Your task to perform on an android device: Is it going to rain tomorrow? Image 0: 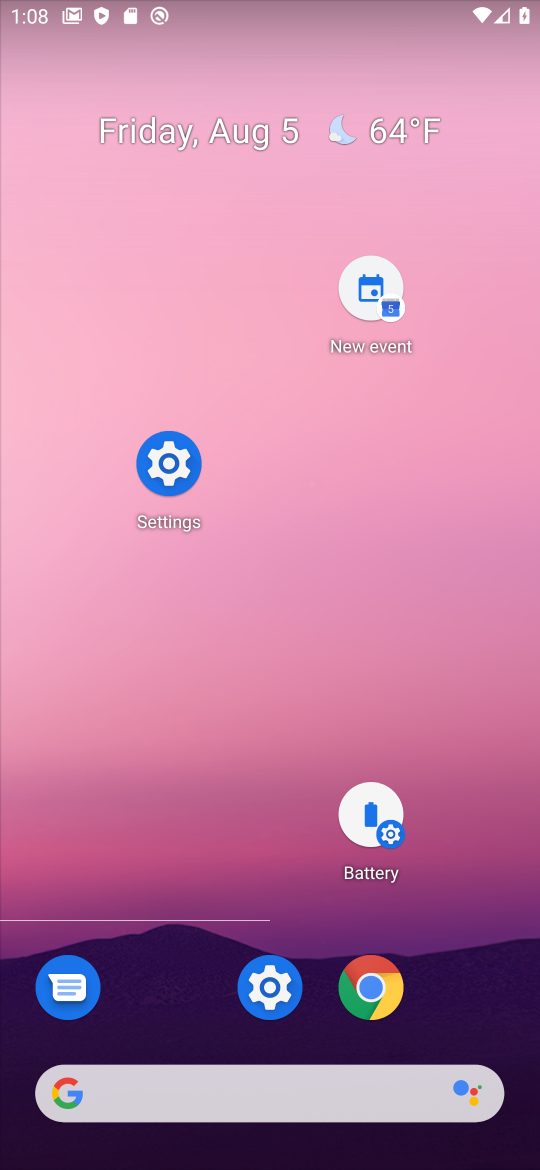
Step 0: drag from (360, 911) to (299, 399)
Your task to perform on an android device: Is it going to rain tomorrow? Image 1: 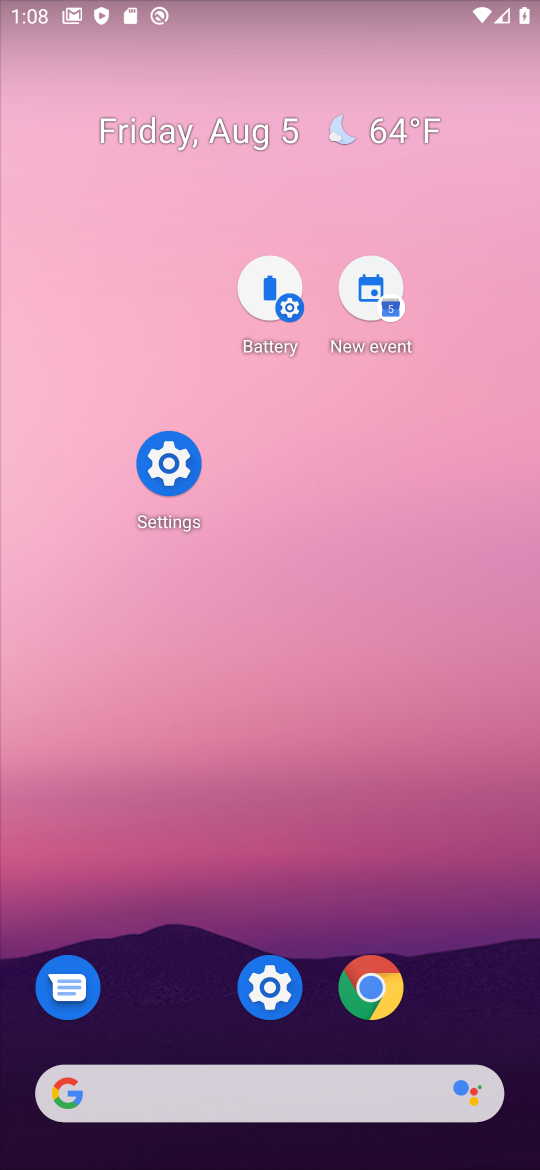
Step 1: drag from (308, 925) to (376, 592)
Your task to perform on an android device: Is it going to rain tomorrow? Image 2: 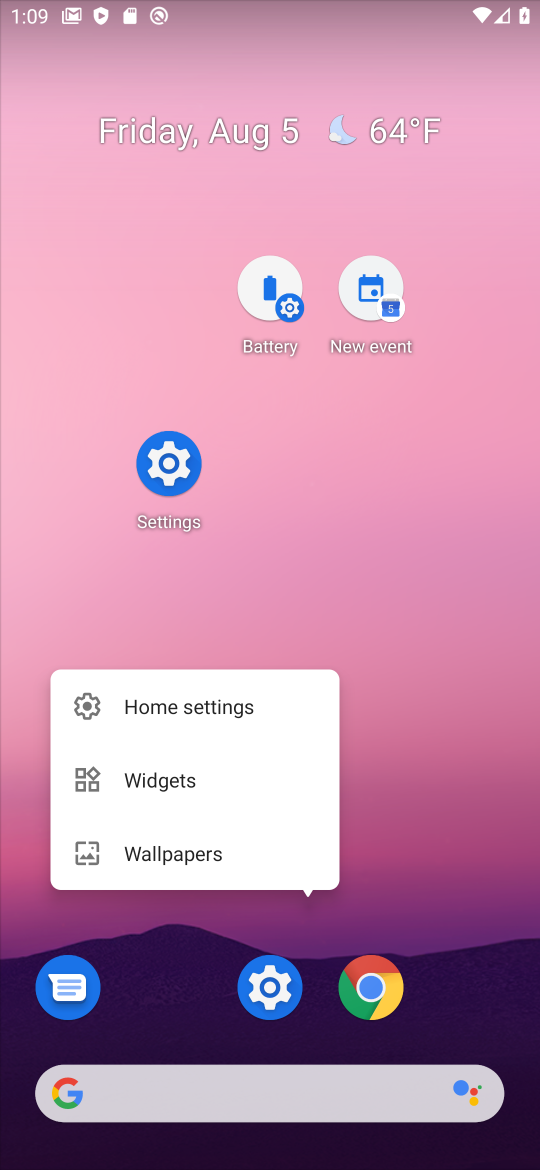
Step 2: press back button
Your task to perform on an android device: Is it going to rain tomorrow? Image 3: 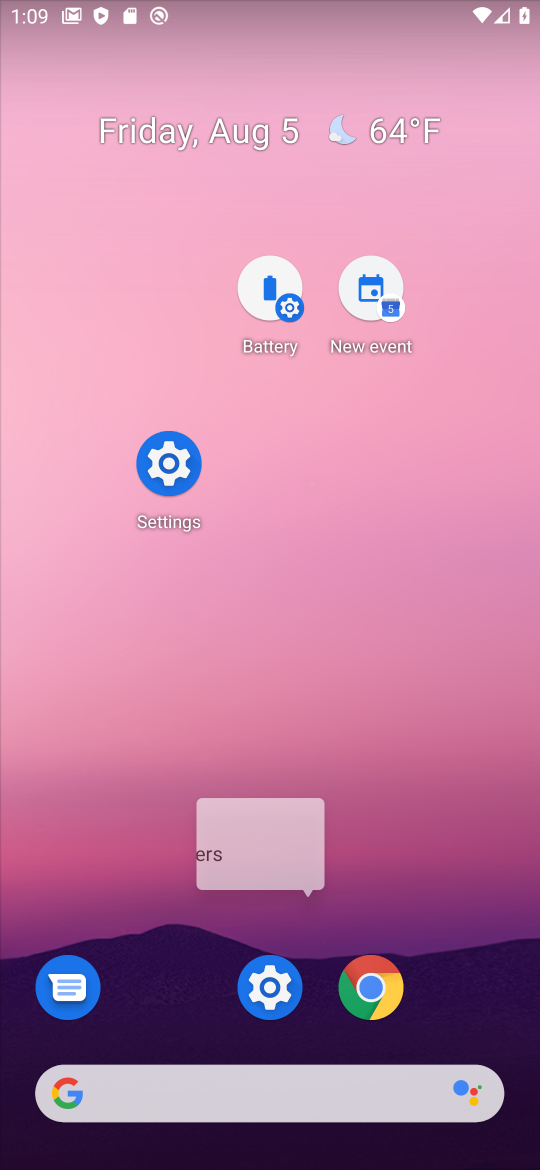
Step 3: press back button
Your task to perform on an android device: Is it going to rain tomorrow? Image 4: 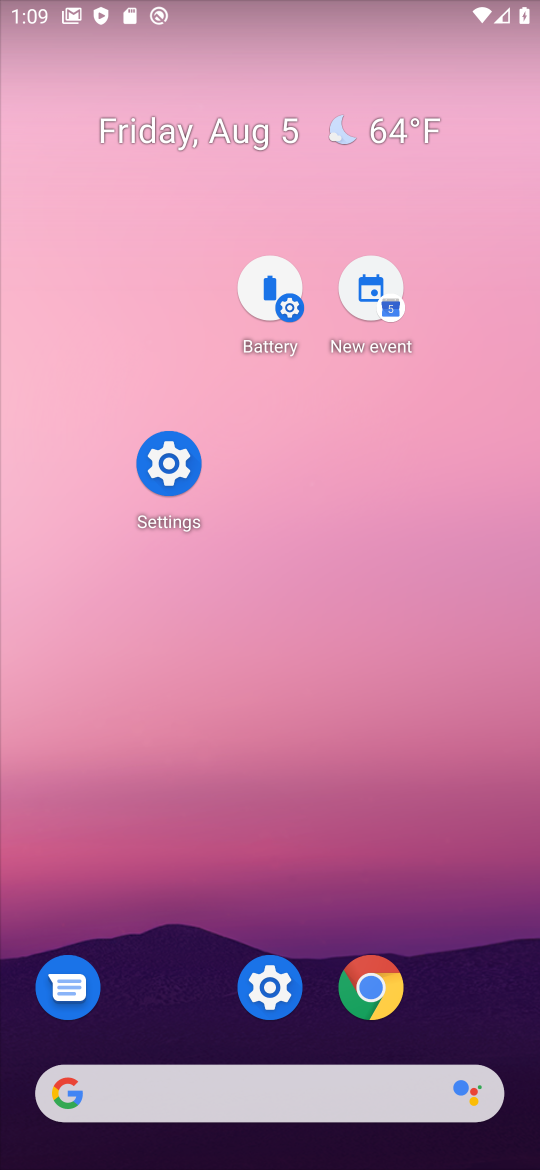
Step 4: drag from (351, 601) to (48, 284)
Your task to perform on an android device: Is it going to rain tomorrow? Image 5: 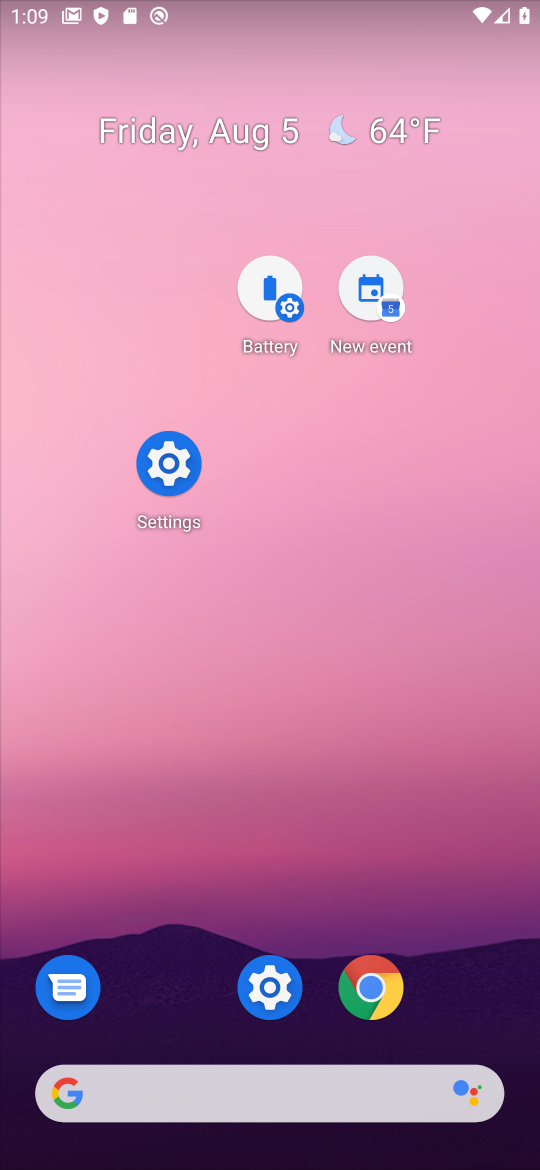
Step 5: drag from (343, 467) to (374, 359)
Your task to perform on an android device: Is it going to rain tomorrow? Image 6: 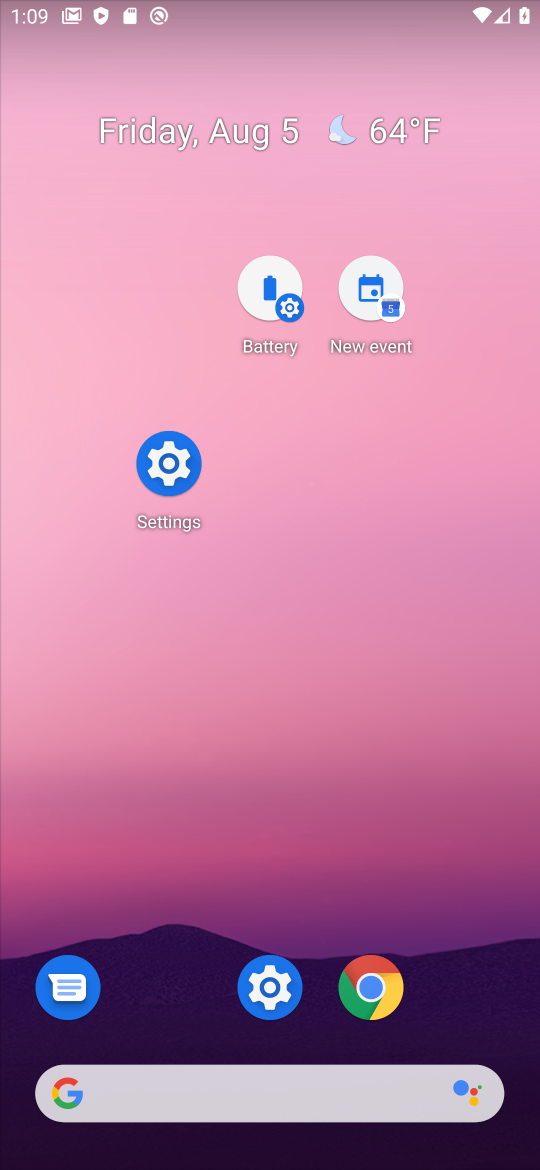
Step 6: drag from (294, 796) to (141, 446)
Your task to perform on an android device: Is it going to rain tomorrow? Image 7: 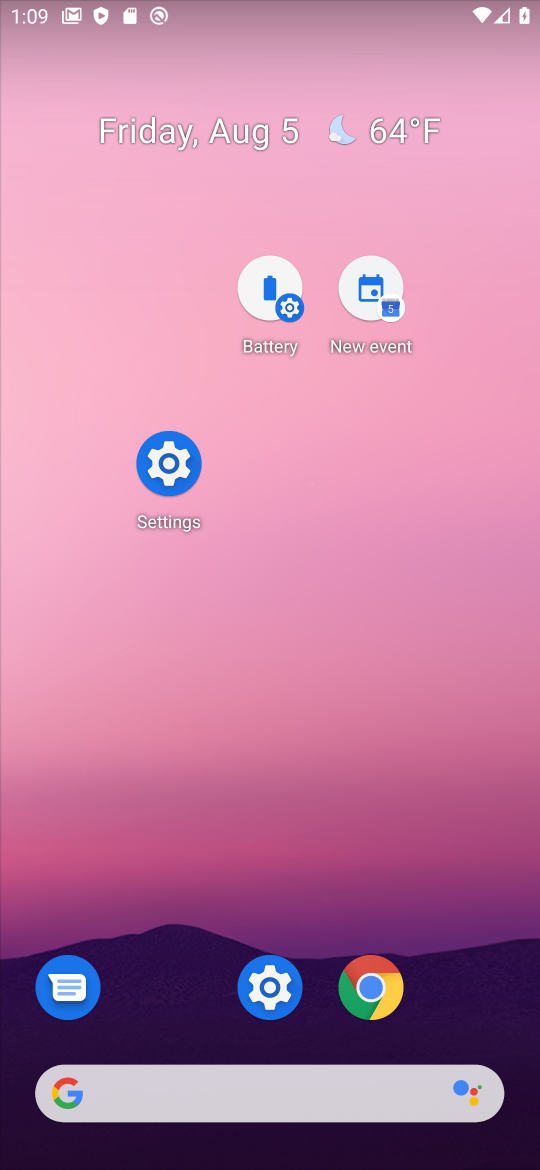
Step 7: click (282, 551)
Your task to perform on an android device: Is it going to rain tomorrow? Image 8: 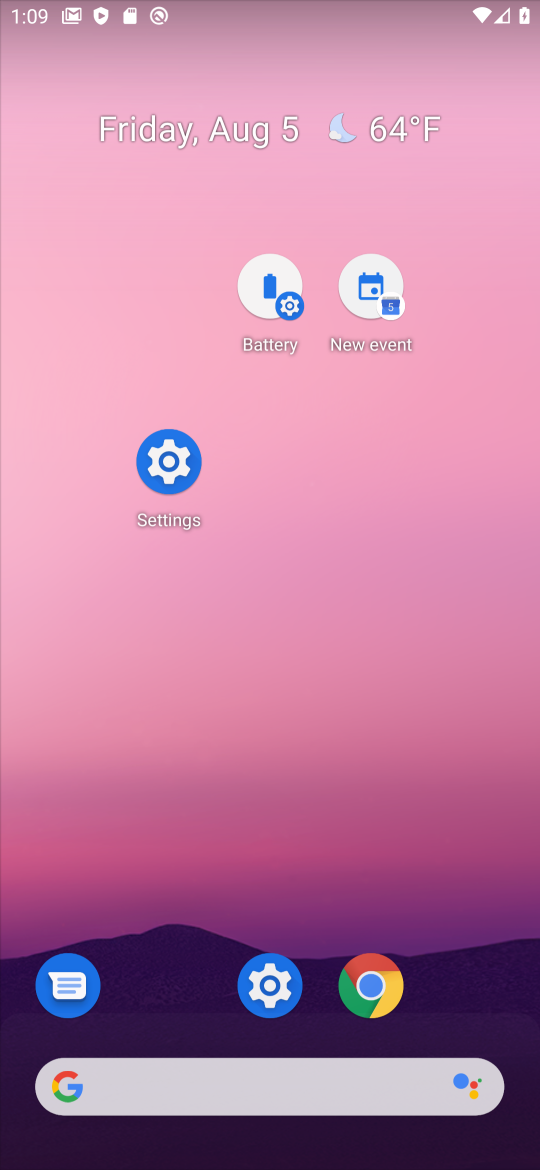
Step 8: drag from (362, 872) to (322, 595)
Your task to perform on an android device: Is it going to rain tomorrow? Image 9: 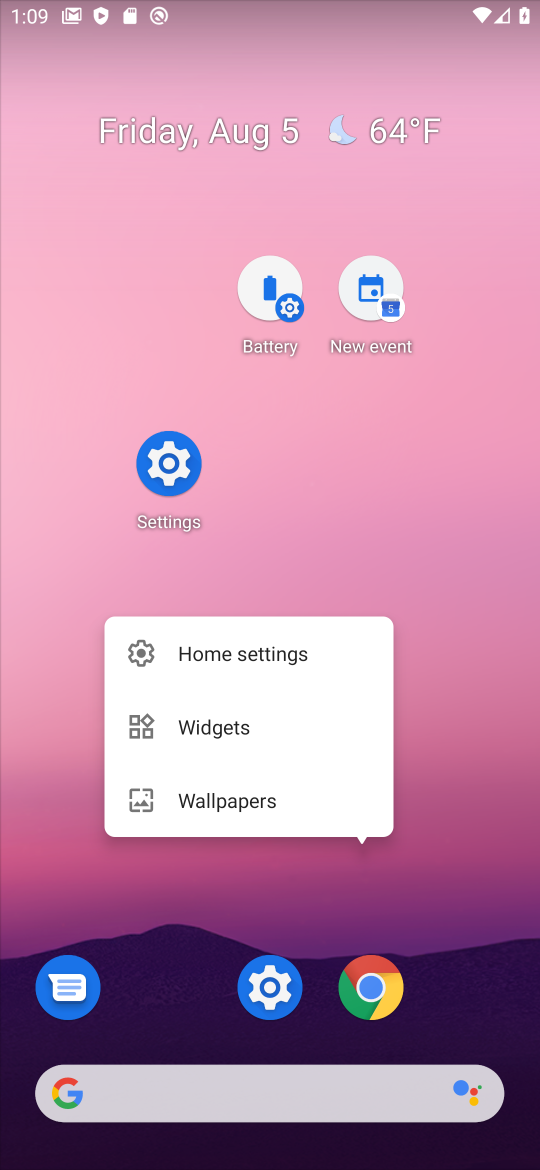
Step 9: drag from (309, 797) to (210, 304)
Your task to perform on an android device: Is it going to rain tomorrow? Image 10: 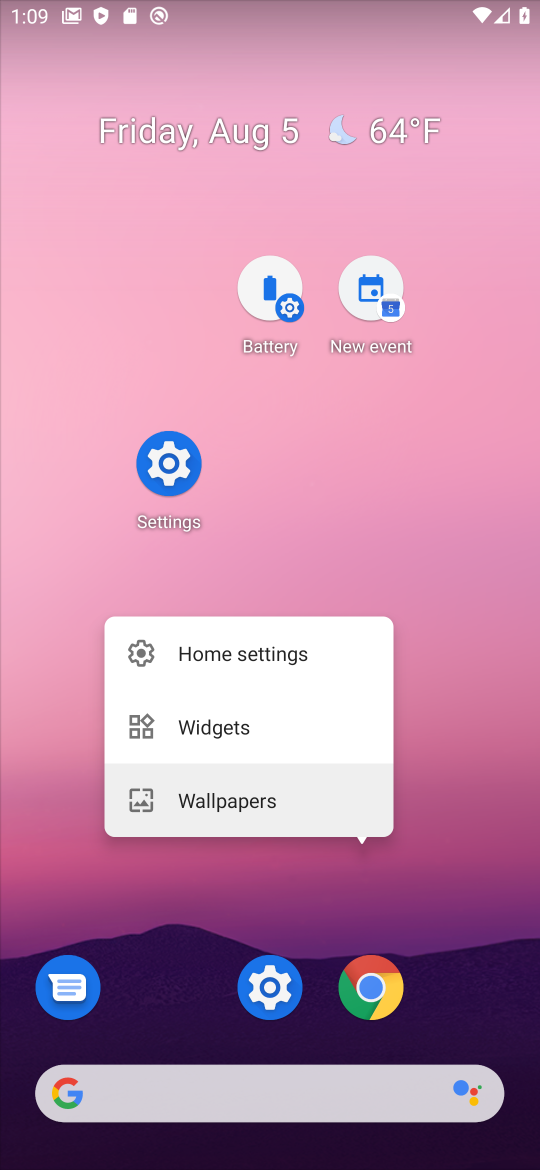
Step 10: drag from (286, 499) to (343, 318)
Your task to perform on an android device: Is it going to rain tomorrow? Image 11: 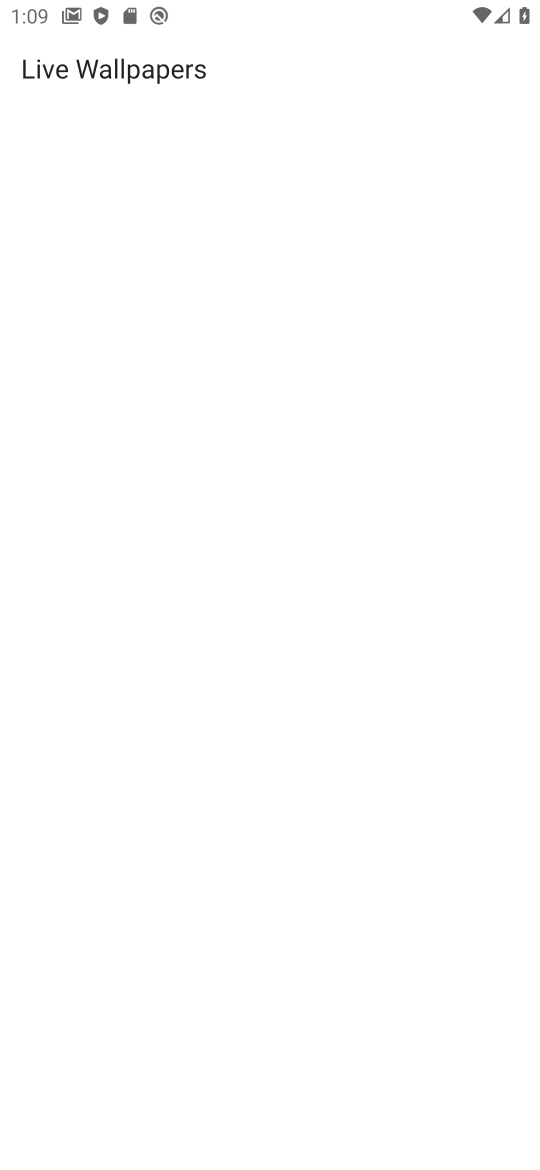
Step 11: drag from (361, 617) to (255, 194)
Your task to perform on an android device: Is it going to rain tomorrow? Image 12: 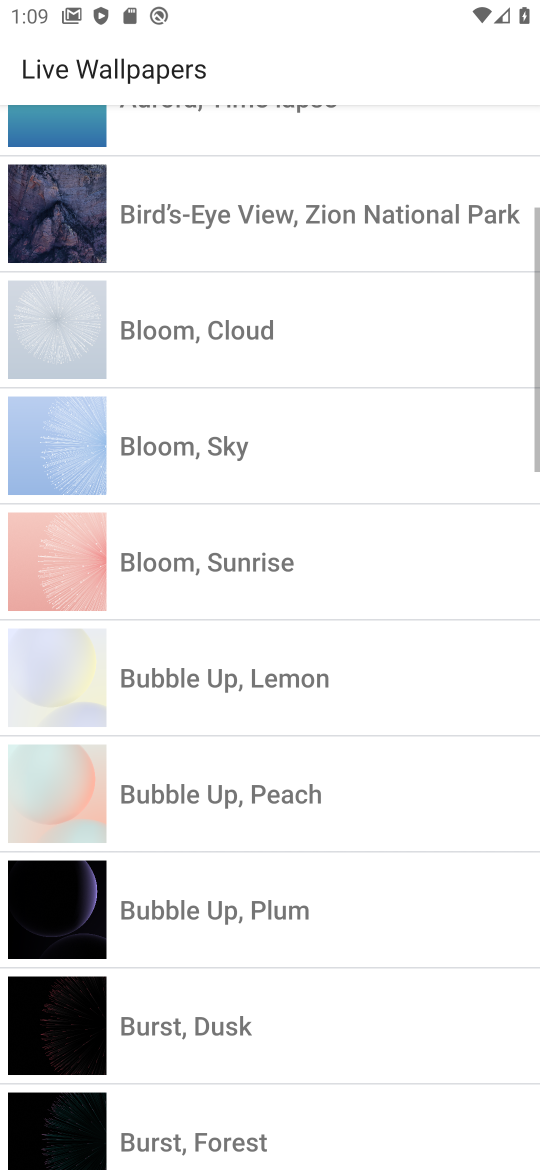
Step 12: press back button
Your task to perform on an android device: Is it going to rain tomorrow? Image 13: 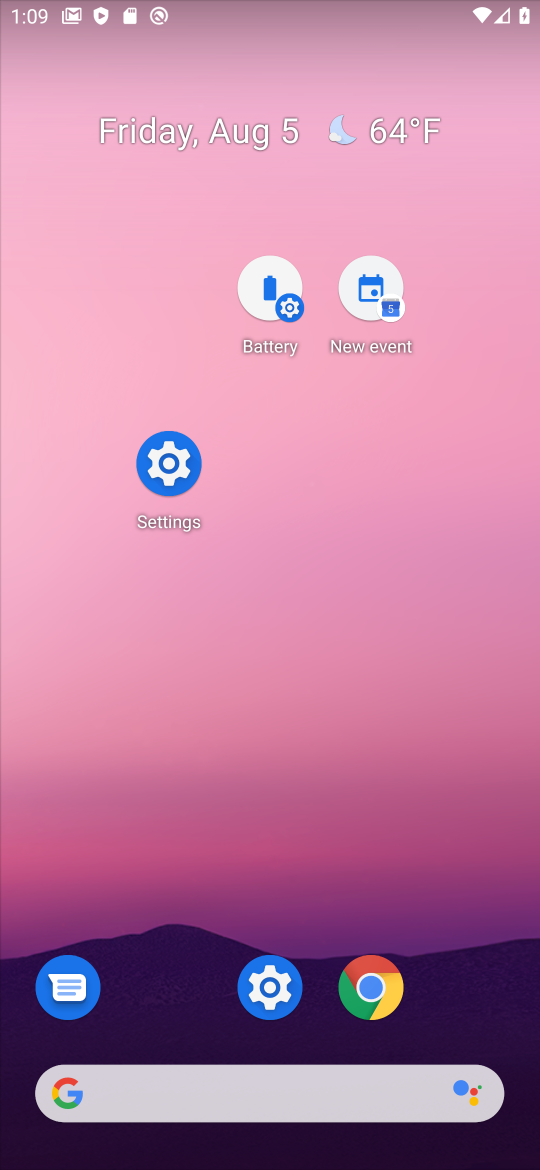
Step 13: drag from (203, 459) to (283, 277)
Your task to perform on an android device: Is it going to rain tomorrow? Image 14: 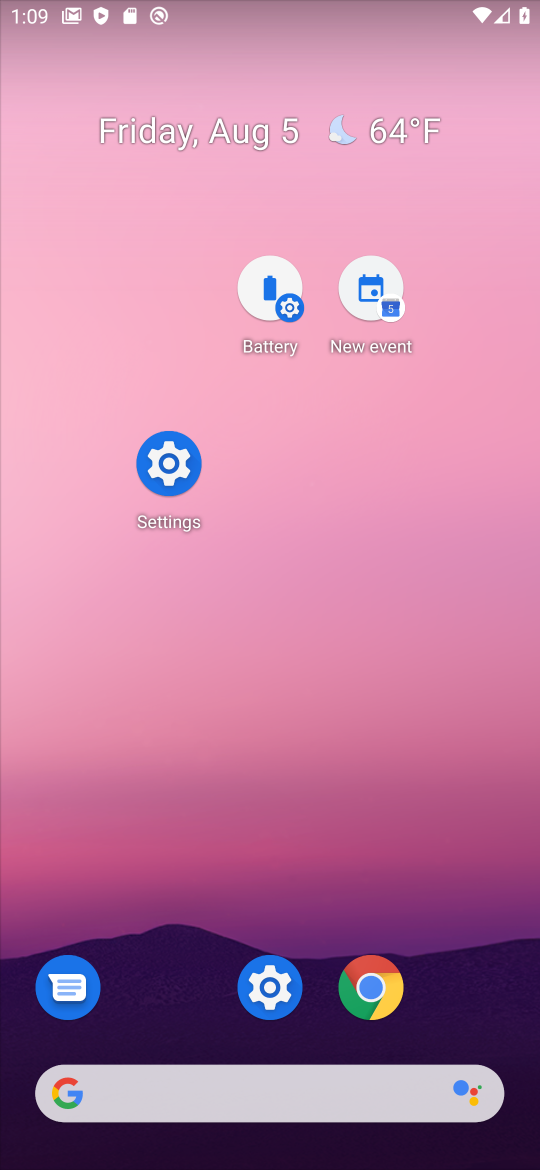
Step 14: drag from (191, 328) to (369, 164)
Your task to perform on an android device: Is it going to rain tomorrow? Image 15: 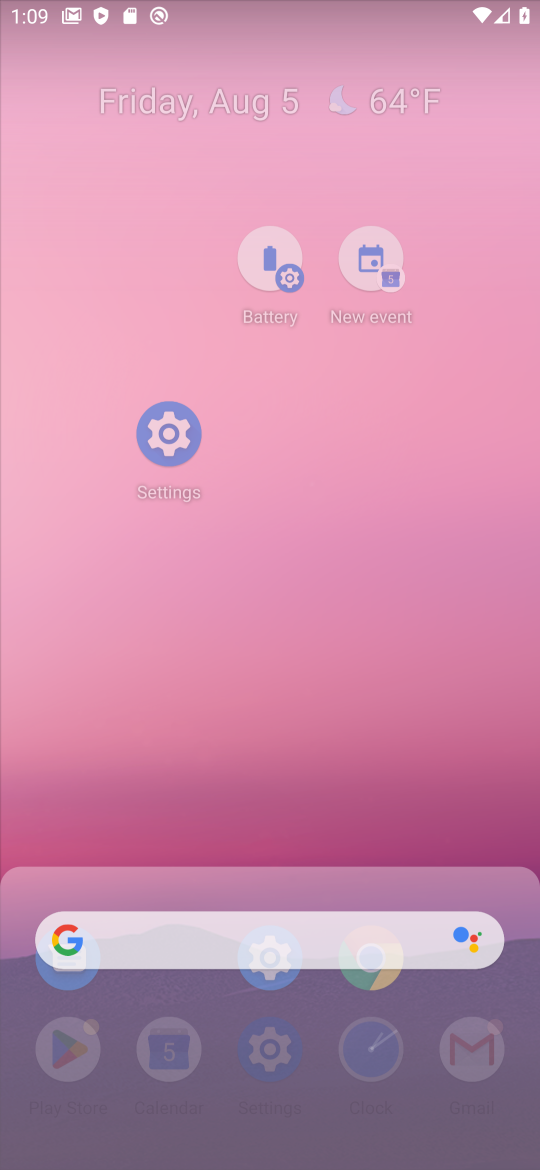
Step 15: drag from (276, 737) to (120, 114)
Your task to perform on an android device: Is it going to rain tomorrow? Image 16: 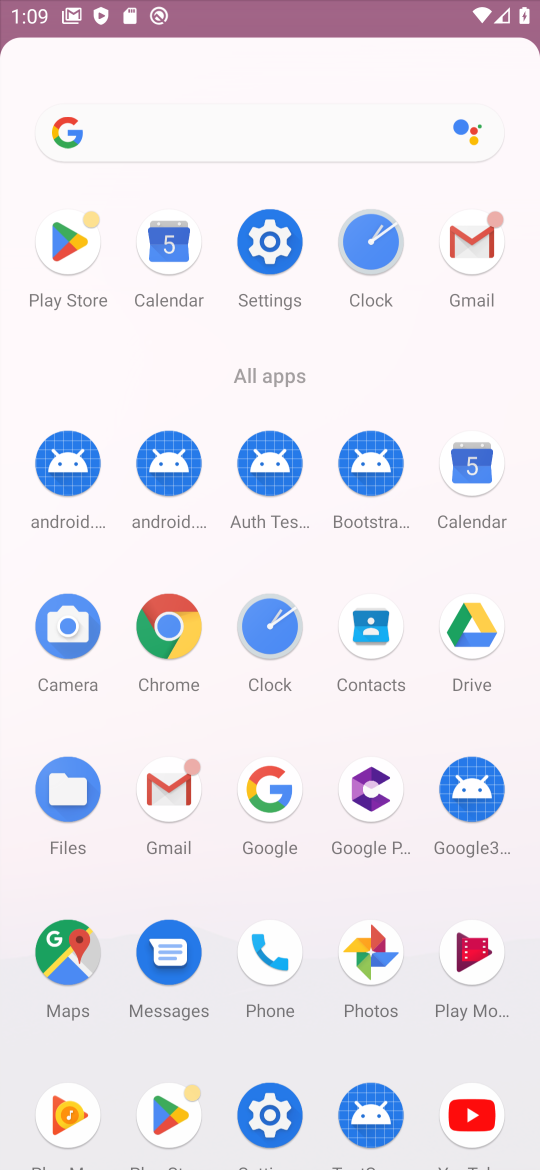
Step 16: drag from (384, 1008) to (144, 31)
Your task to perform on an android device: Is it going to rain tomorrow? Image 17: 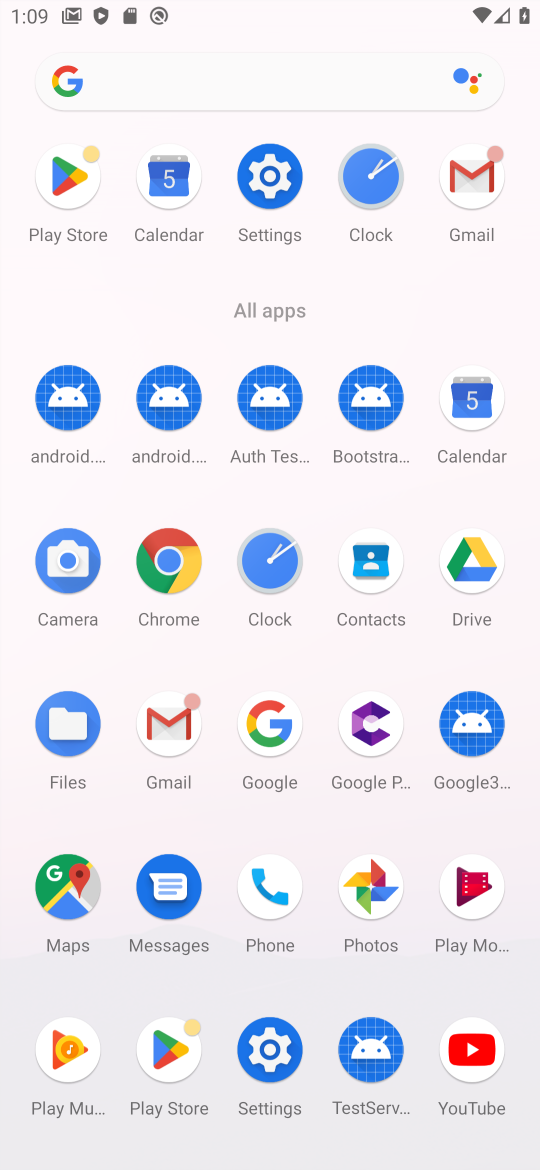
Step 17: click (170, 583)
Your task to perform on an android device: Is it going to rain tomorrow? Image 18: 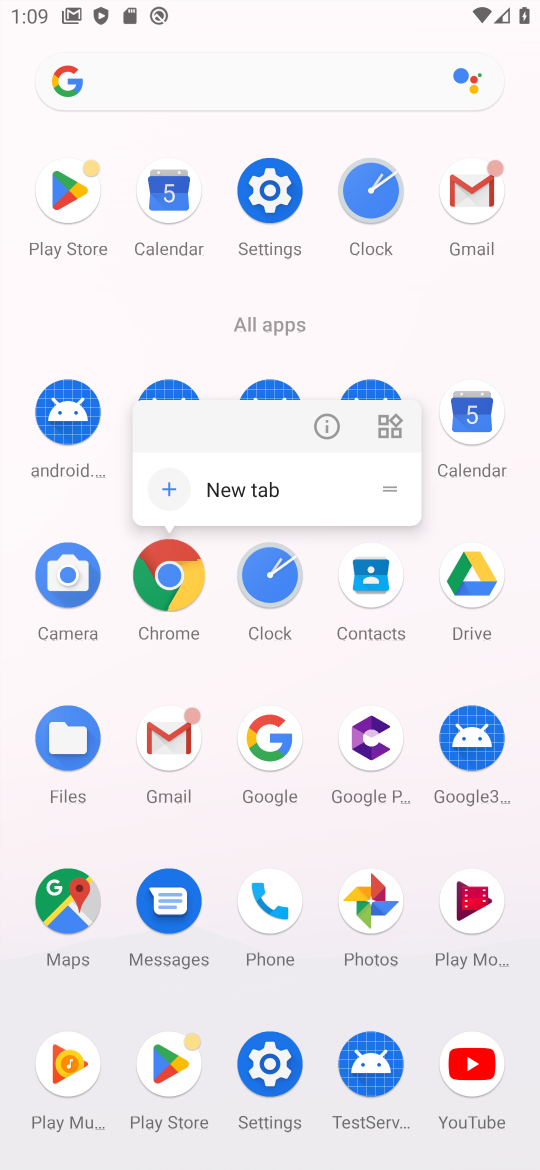
Step 18: click (238, 496)
Your task to perform on an android device: Is it going to rain tomorrow? Image 19: 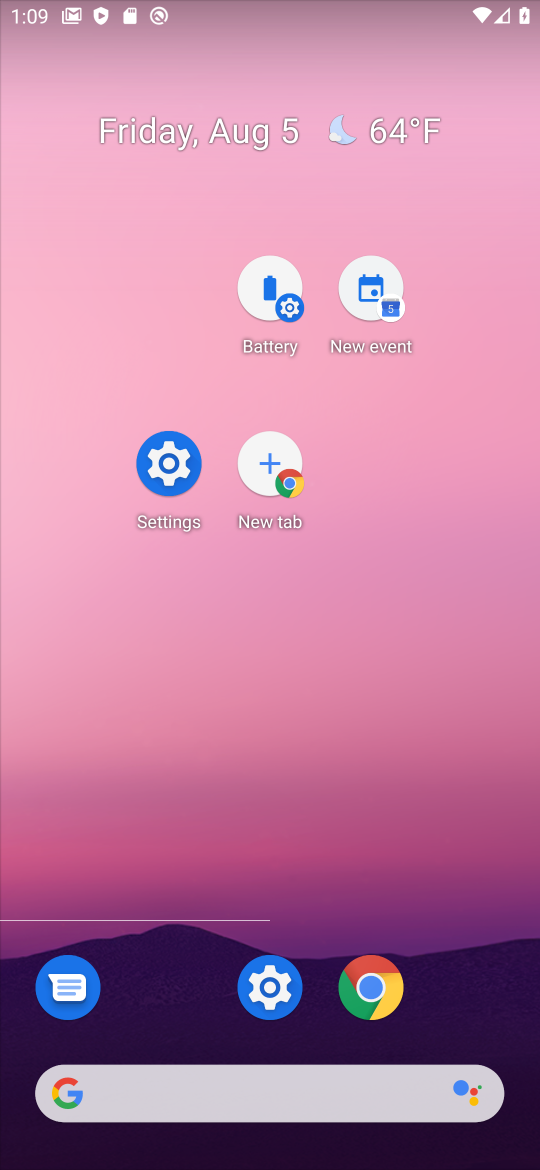
Step 19: task complete